Your task to perform on an android device: Open maps Image 0: 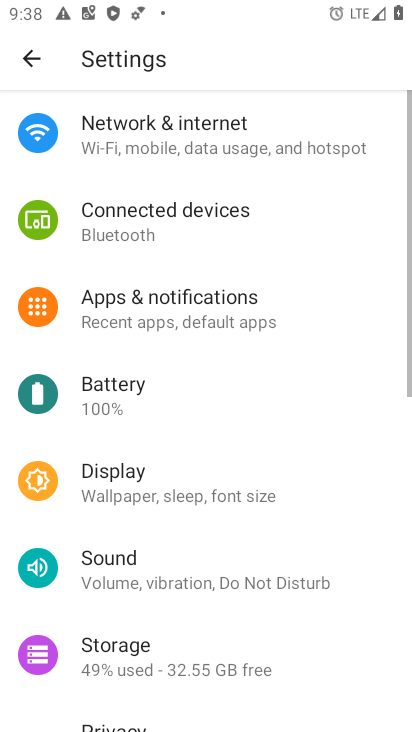
Step 0: press home button
Your task to perform on an android device: Open maps Image 1: 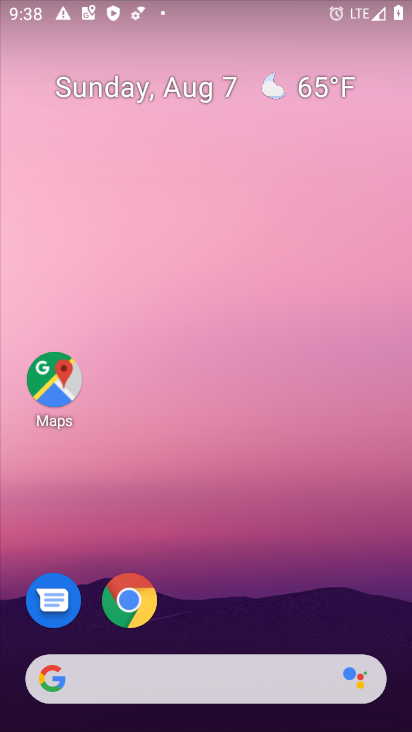
Step 1: click (48, 367)
Your task to perform on an android device: Open maps Image 2: 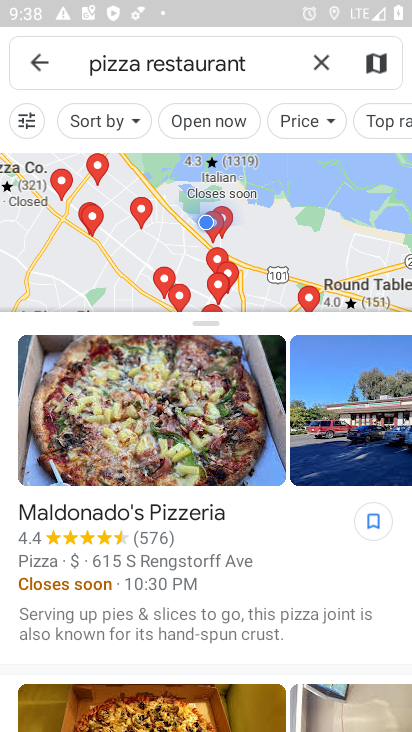
Step 2: task complete